Your task to perform on an android device: turn on improve location accuracy Image 0: 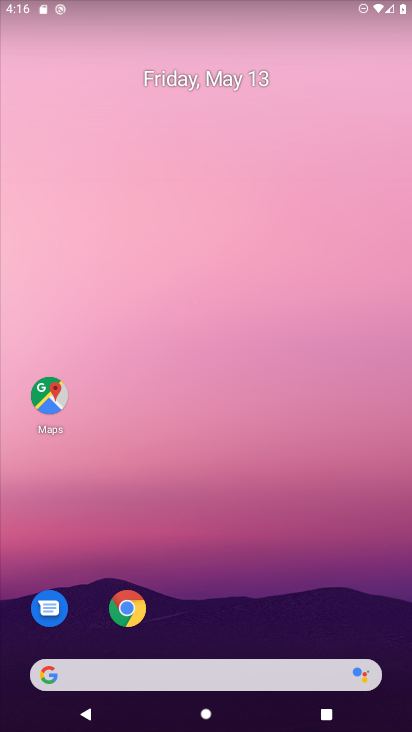
Step 0: drag from (280, 557) to (295, 0)
Your task to perform on an android device: turn on improve location accuracy Image 1: 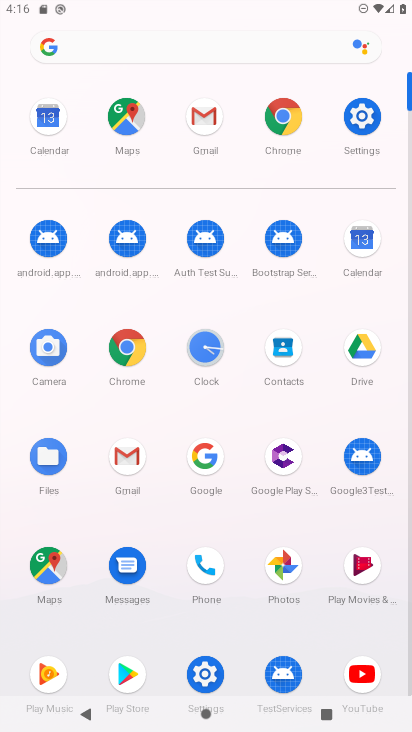
Step 1: click (363, 128)
Your task to perform on an android device: turn on improve location accuracy Image 2: 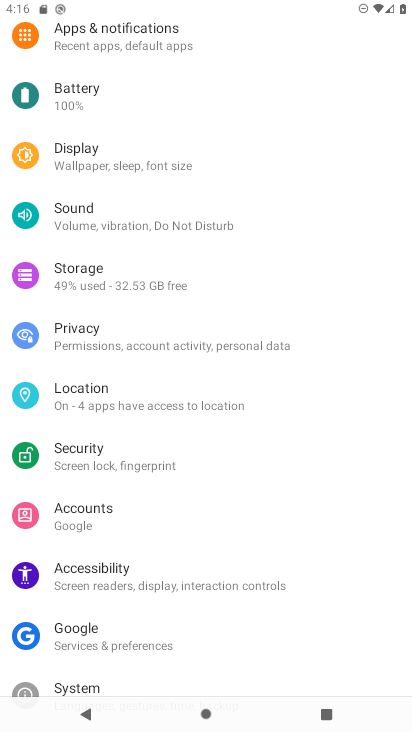
Step 2: drag from (247, 642) to (218, 203)
Your task to perform on an android device: turn on improve location accuracy Image 3: 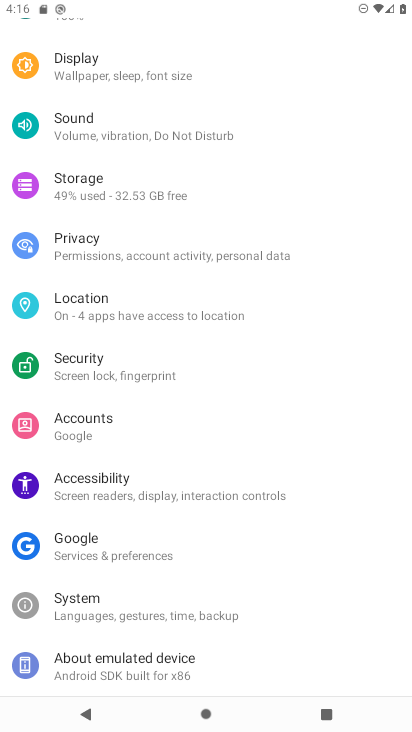
Step 3: click (105, 307)
Your task to perform on an android device: turn on improve location accuracy Image 4: 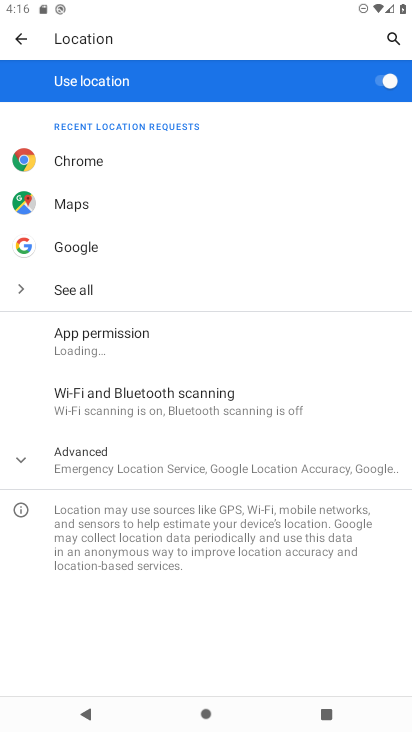
Step 4: click (218, 472)
Your task to perform on an android device: turn on improve location accuracy Image 5: 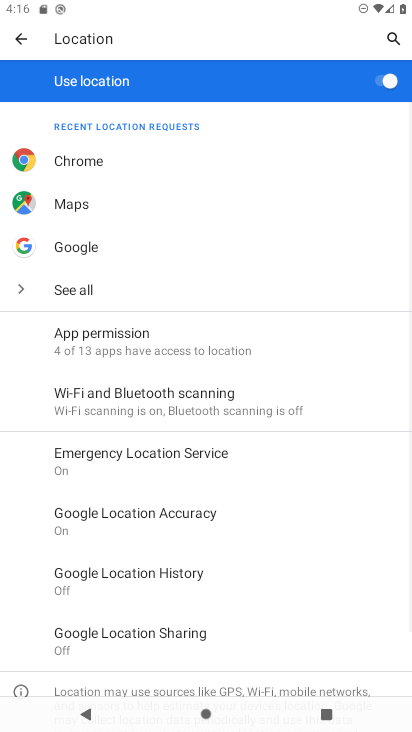
Step 5: click (200, 504)
Your task to perform on an android device: turn on improve location accuracy Image 6: 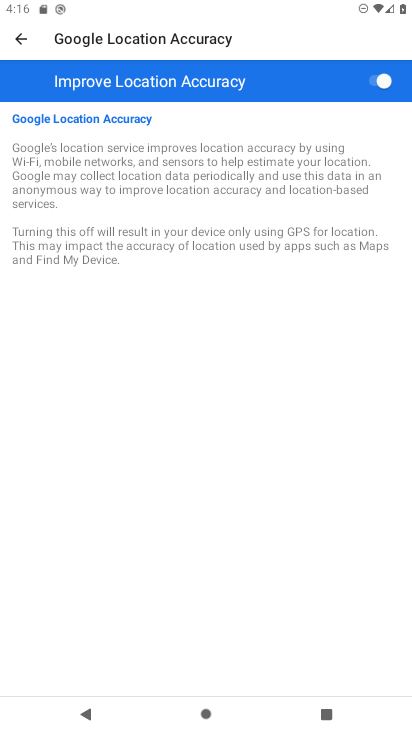
Step 6: task complete